Your task to perform on an android device: turn off notifications in google photos Image 0: 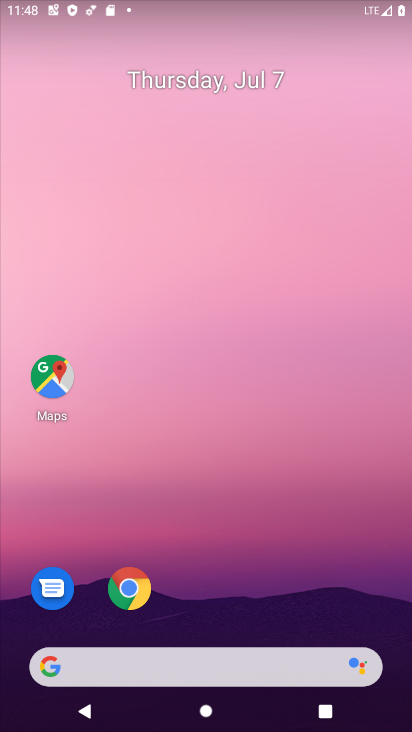
Step 0: drag from (223, 525) to (266, 48)
Your task to perform on an android device: turn off notifications in google photos Image 1: 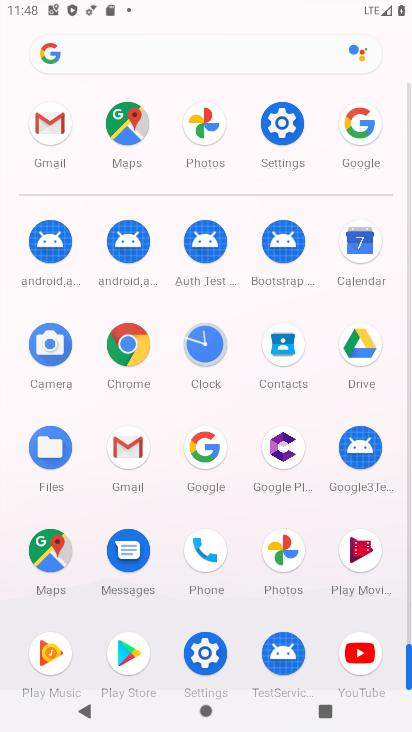
Step 1: click (283, 544)
Your task to perform on an android device: turn off notifications in google photos Image 2: 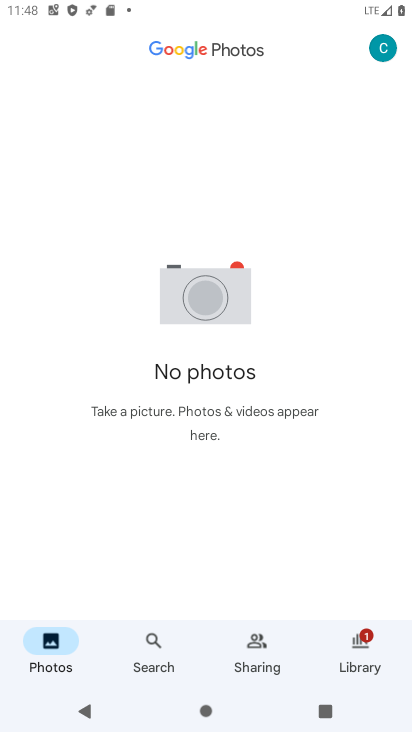
Step 2: click (383, 46)
Your task to perform on an android device: turn off notifications in google photos Image 3: 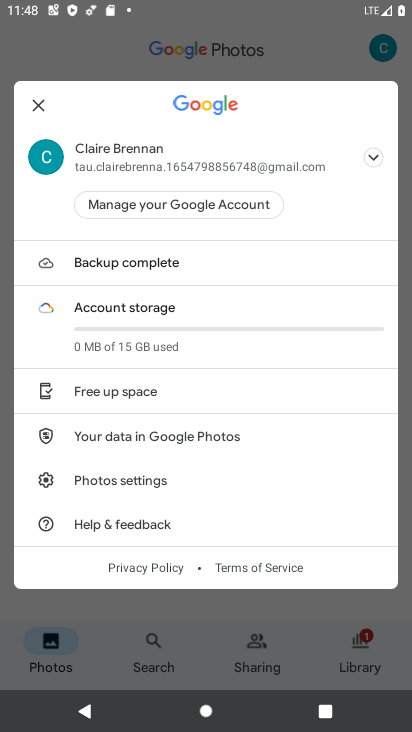
Step 3: click (140, 484)
Your task to perform on an android device: turn off notifications in google photos Image 4: 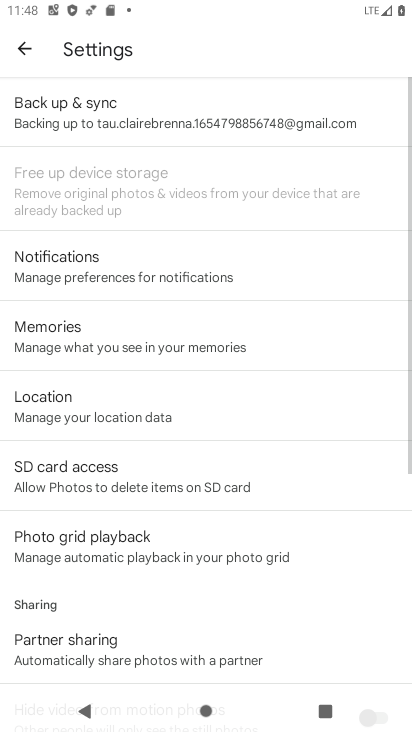
Step 4: click (102, 266)
Your task to perform on an android device: turn off notifications in google photos Image 5: 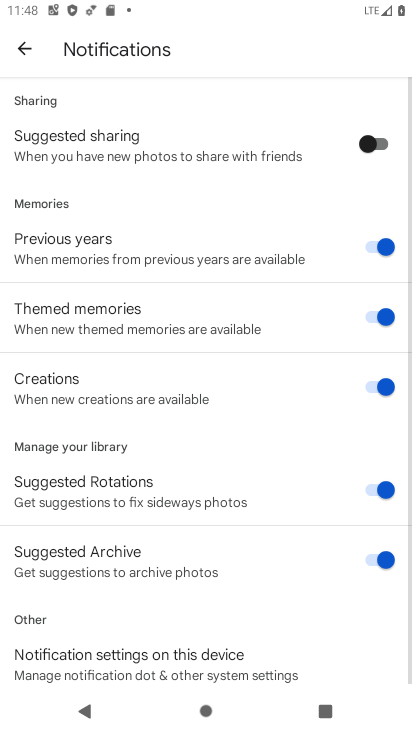
Step 5: drag from (236, 620) to (241, 462)
Your task to perform on an android device: turn off notifications in google photos Image 6: 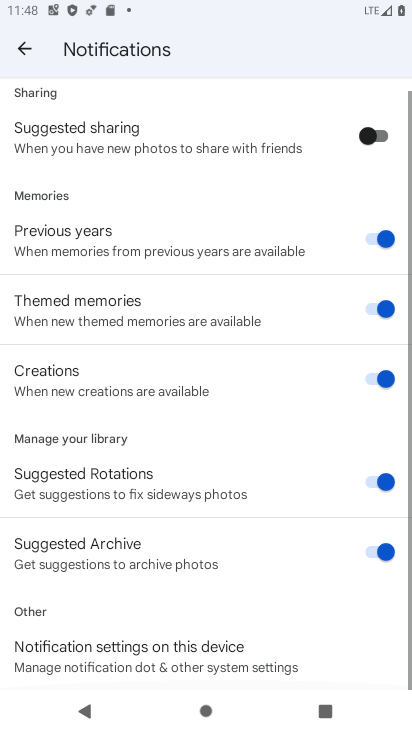
Step 6: click (205, 655)
Your task to perform on an android device: turn off notifications in google photos Image 7: 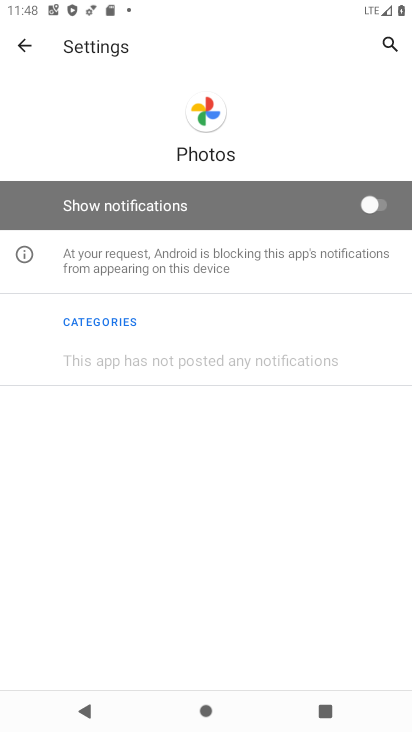
Step 7: task complete